Your task to perform on an android device: toggle priority inbox in the gmail app Image 0: 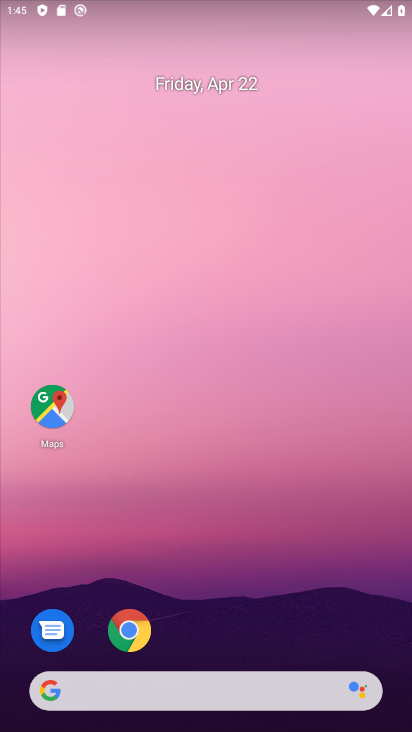
Step 0: drag from (212, 615) to (255, 197)
Your task to perform on an android device: toggle priority inbox in the gmail app Image 1: 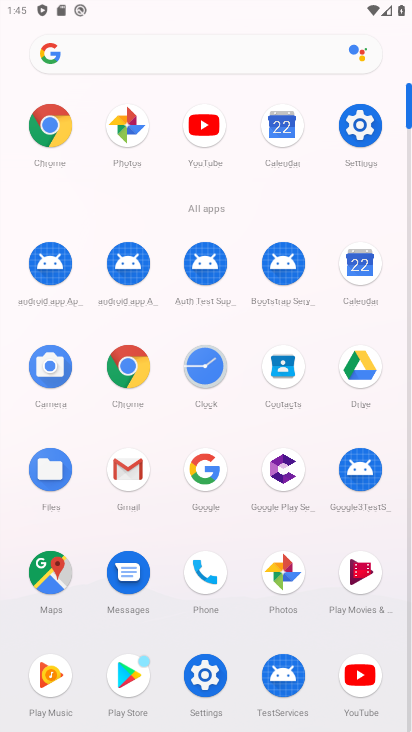
Step 1: click (131, 476)
Your task to perform on an android device: toggle priority inbox in the gmail app Image 2: 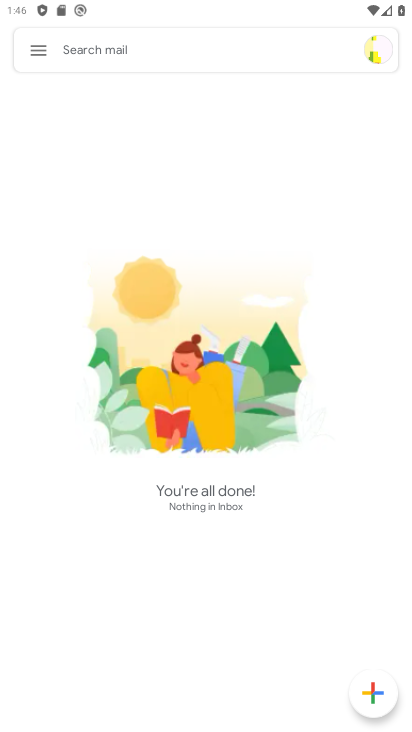
Step 2: click (26, 43)
Your task to perform on an android device: toggle priority inbox in the gmail app Image 3: 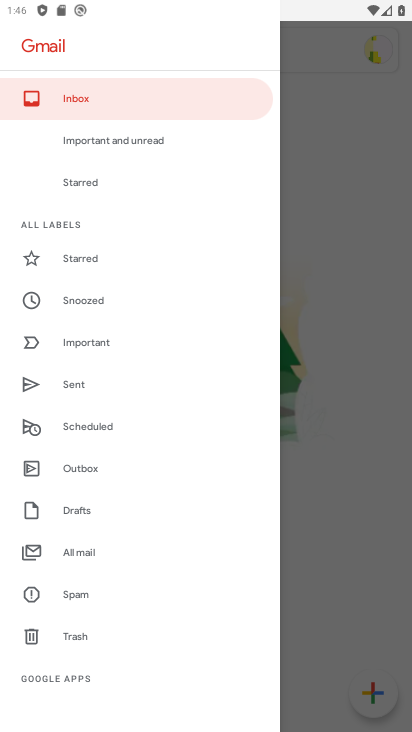
Step 3: drag from (115, 617) to (91, 217)
Your task to perform on an android device: toggle priority inbox in the gmail app Image 4: 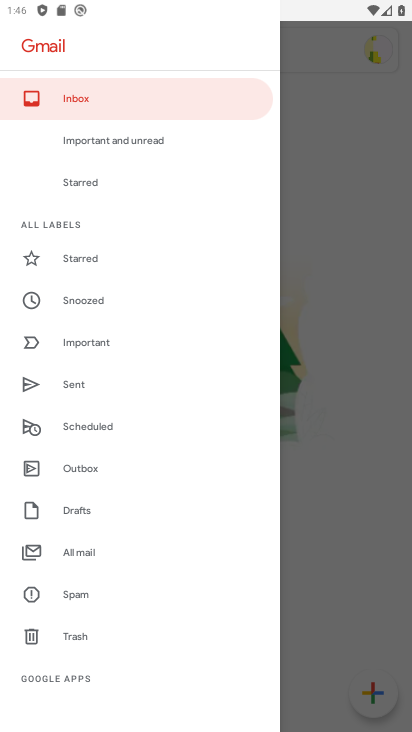
Step 4: drag from (105, 555) to (128, 145)
Your task to perform on an android device: toggle priority inbox in the gmail app Image 5: 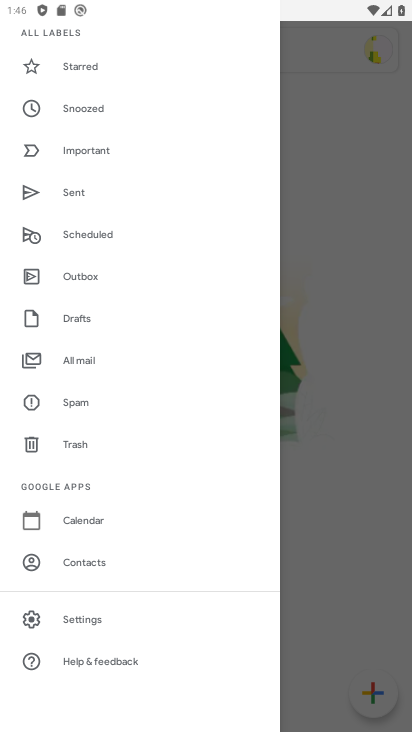
Step 5: click (96, 613)
Your task to perform on an android device: toggle priority inbox in the gmail app Image 6: 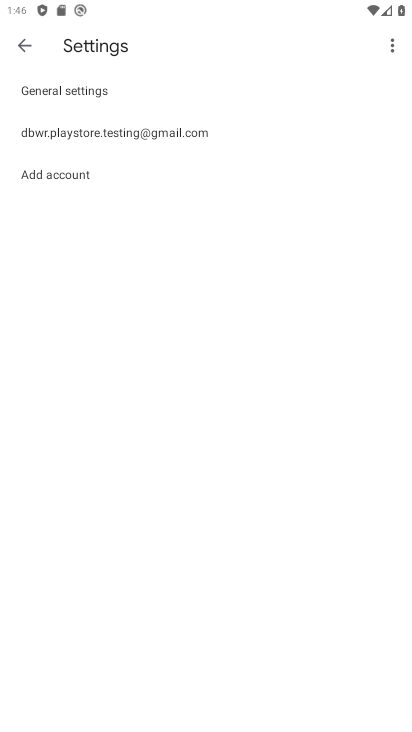
Step 6: click (97, 137)
Your task to perform on an android device: toggle priority inbox in the gmail app Image 7: 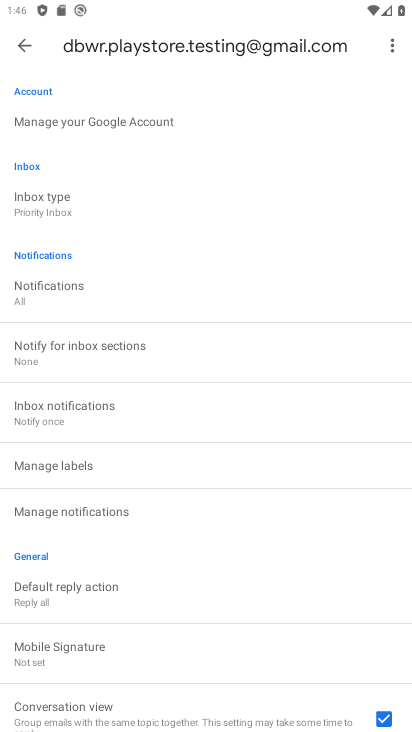
Step 7: click (76, 205)
Your task to perform on an android device: toggle priority inbox in the gmail app Image 8: 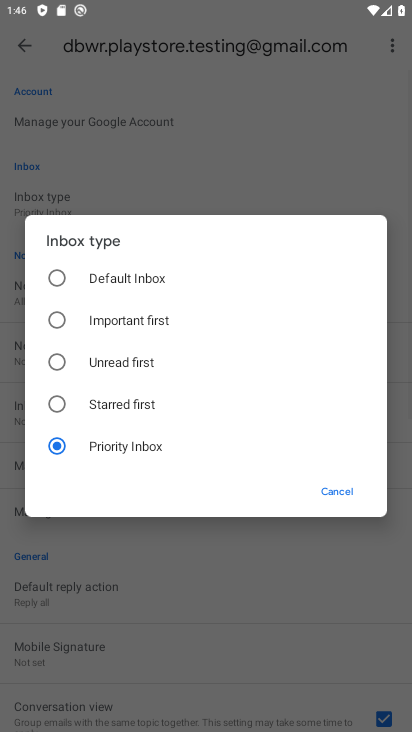
Step 8: click (62, 411)
Your task to perform on an android device: toggle priority inbox in the gmail app Image 9: 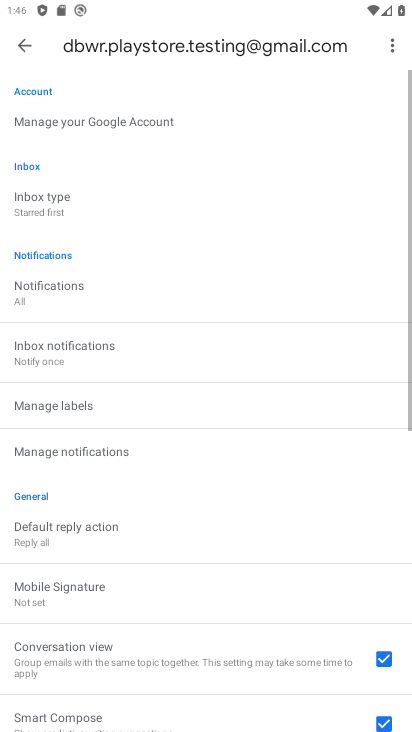
Step 9: task complete